Your task to perform on an android device: What is the news today? Image 0: 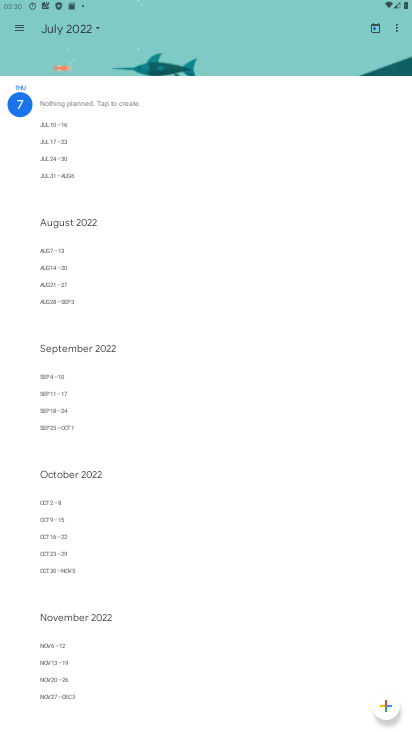
Step 0: press home button
Your task to perform on an android device: What is the news today? Image 1: 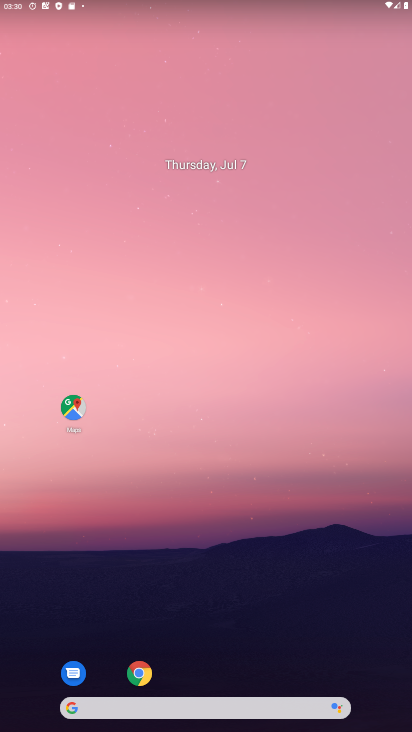
Step 1: drag from (191, 622) to (217, 170)
Your task to perform on an android device: What is the news today? Image 2: 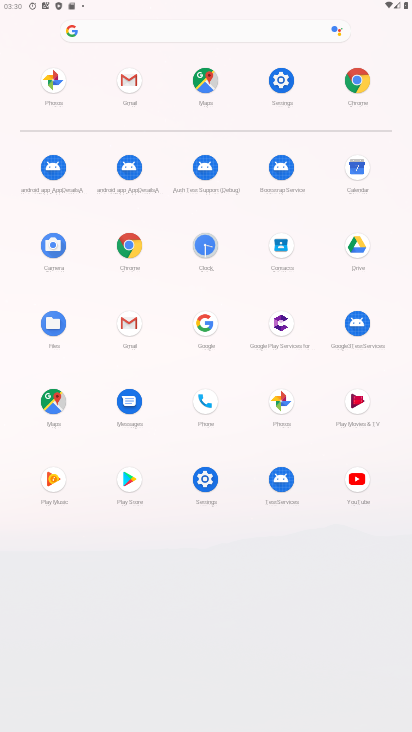
Step 2: click (210, 340)
Your task to perform on an android device: What is the news today? Image 3: 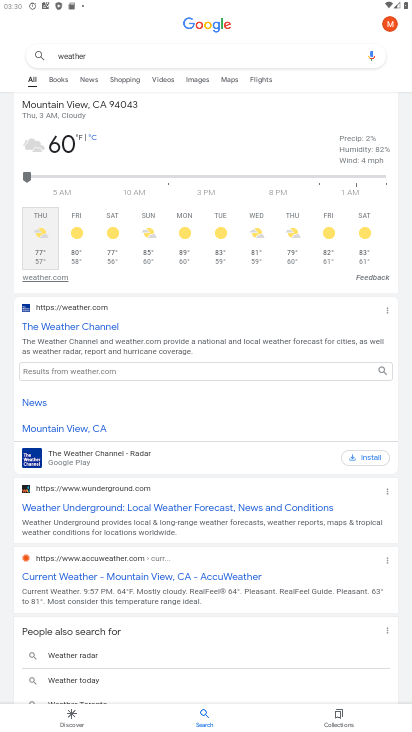
Step 3: click (200, 56)
Your task to perform on an android device: What is the news today? Image 4: 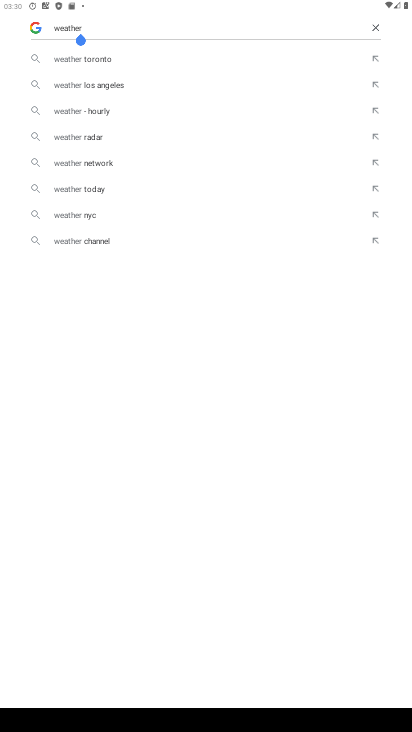
Step 4: click (371, 26)
Your task to perform on an android device: What is the news today? Image 5: 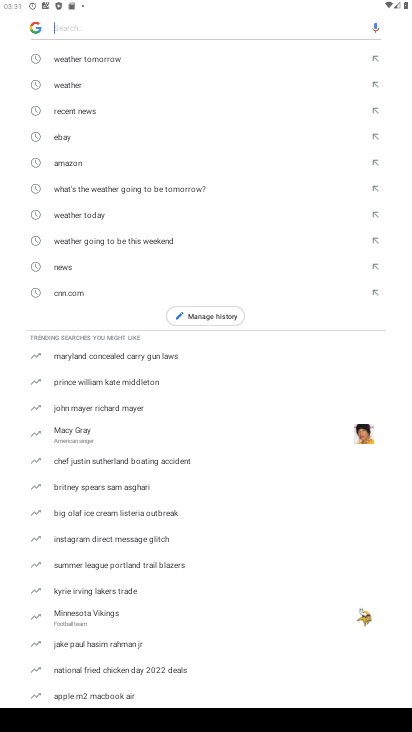
Step 5: type "news "
Your task to perform on an android device: What is the news today? Image 6: 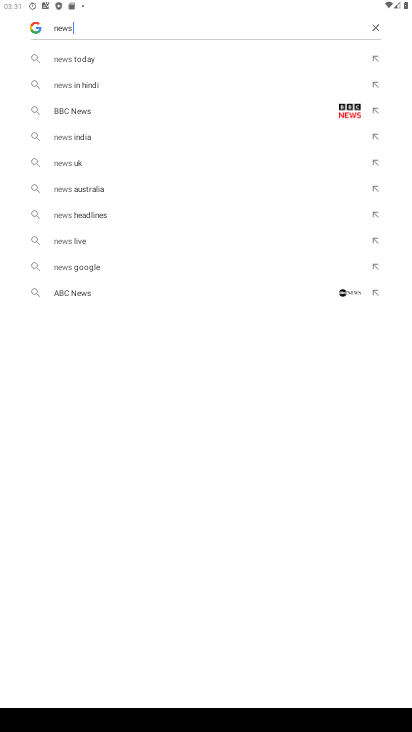
Step 6: click (125, 62)
Your task to perform on an android device: What is the news today? Image 7: 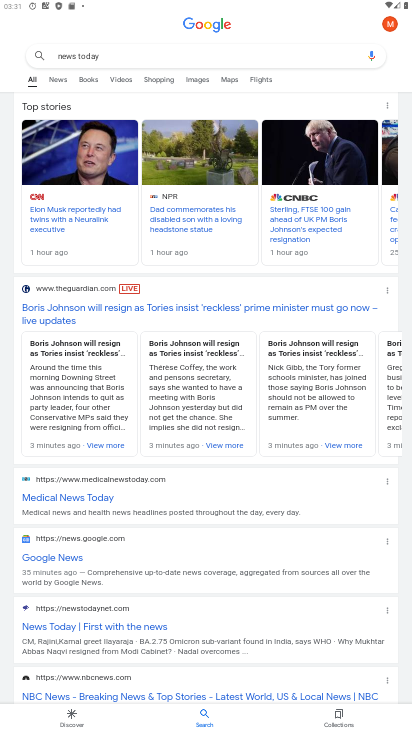
Step 7: click (63, 84)
Your task to perform on an android device: What is the news today? Image 8: 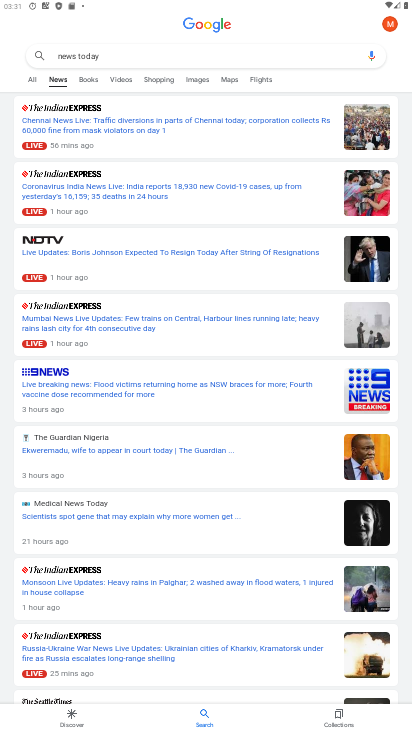
Step 8: task complete